Your task to perform on an android device: set default search engine in the chrome app Image 0: 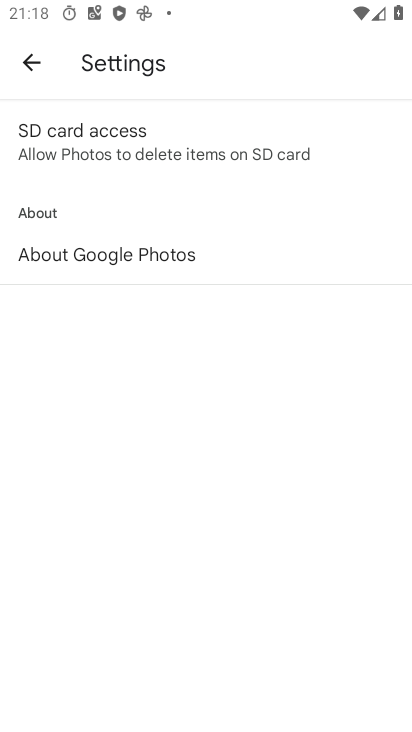
Step 0: press home button
Your task to perform on an android device: set default search engine in the chrome app Image 1: 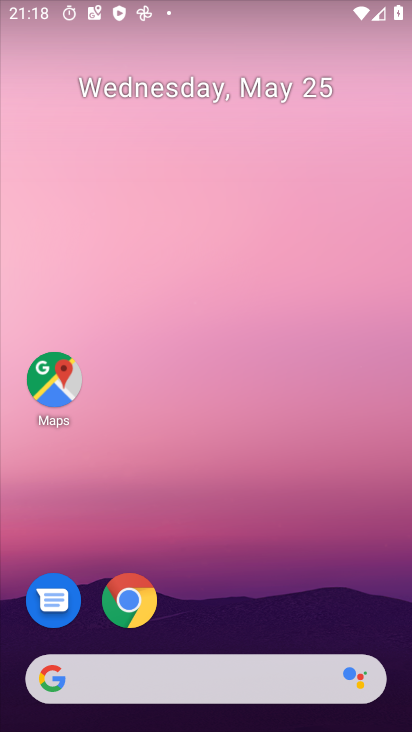
Step 1: drag from (368, 619) to (319, 217)
Your task to perform on an android device: set default search engine in the chrome app Image 2: 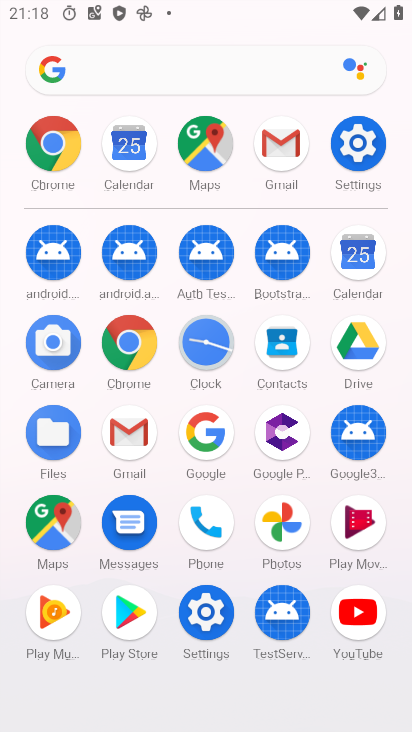
Step 2: click (126, 362)
Your task to perform on an android device: set default search engine in the chrome app Image 3: 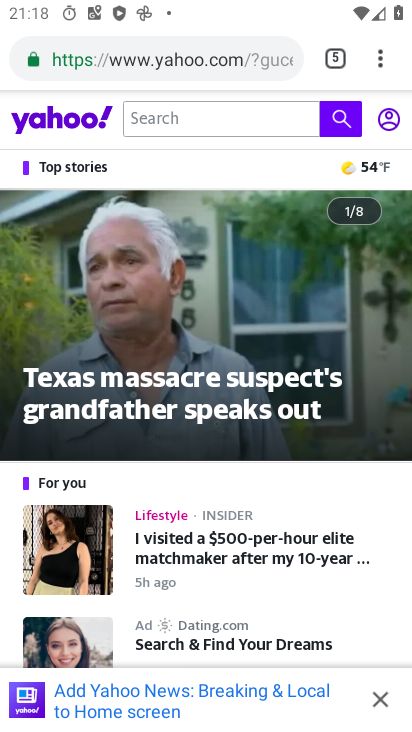
Step 3: drag from (391, 63) to (174, 637)
Your task to perform on an android device: set default search engine in the chrome app Image 4: 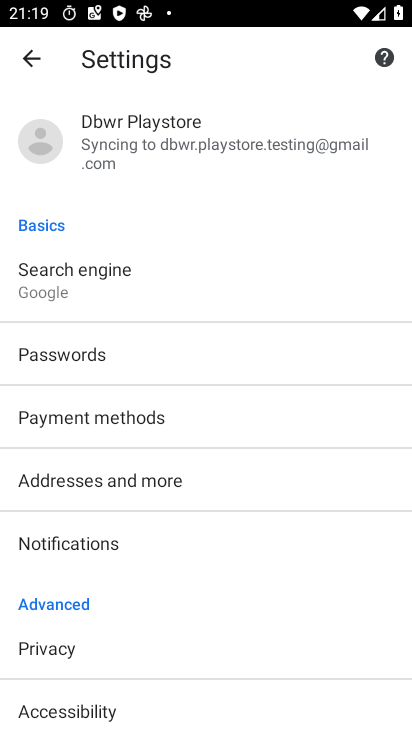
Step 4: click (130, 279)
Your task to perform on an android device: set default search engine in the chrome app Image 5: 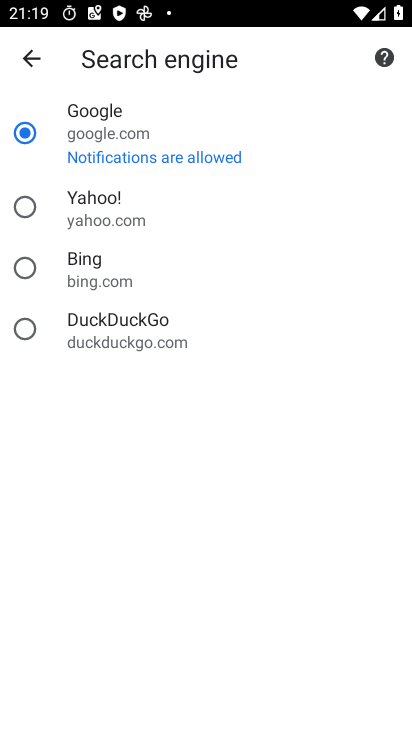
Step 5: click (125, 197)
Your task to perform on an android device: set default search engine in the chrome app Image 6: 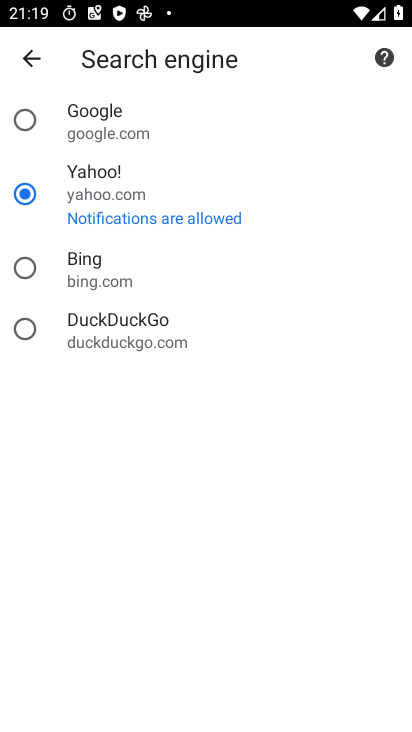
Step 6: task complete